Your task to perform on an android device: What's the weather going to be tomorrow? Image 0: 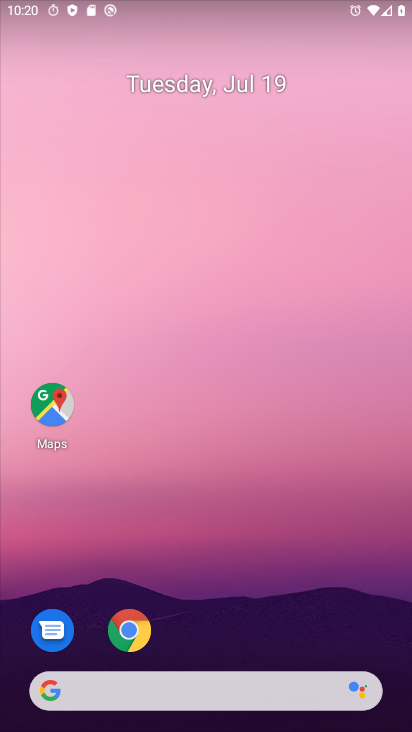
Step 0: press home button
Your task to perform on an android device: What's the weather going to be tomorrow? Image 1: 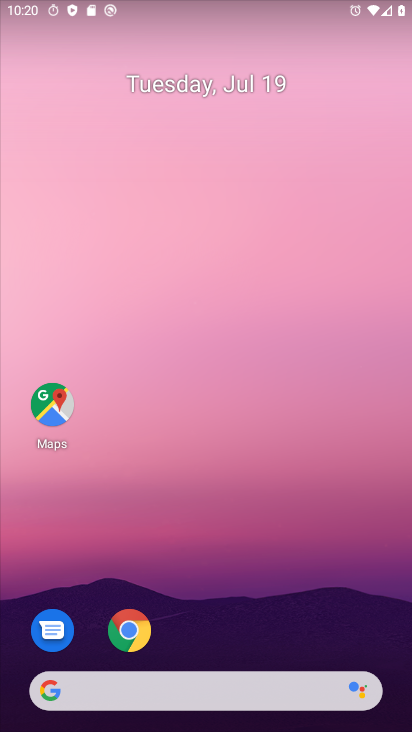
Step 1: click (54, 681)
Your task to perform on an android device: What's the weather going to be tomorrow? Image 2: 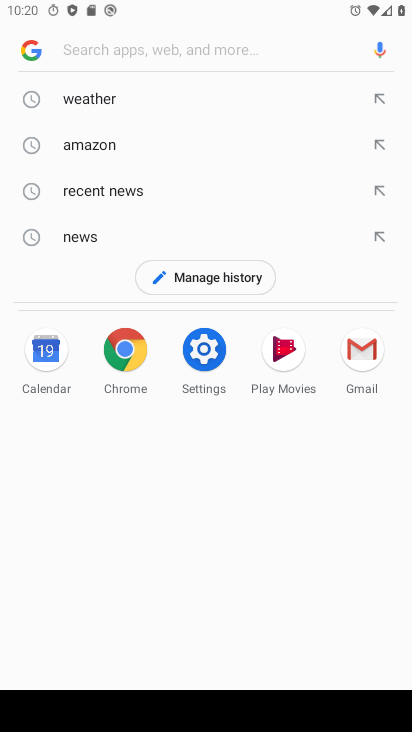
Step 2: type "weather going to be tomorrow"
Your task to perform on an android device: What's the weather going to be tomorrow? Image 3: 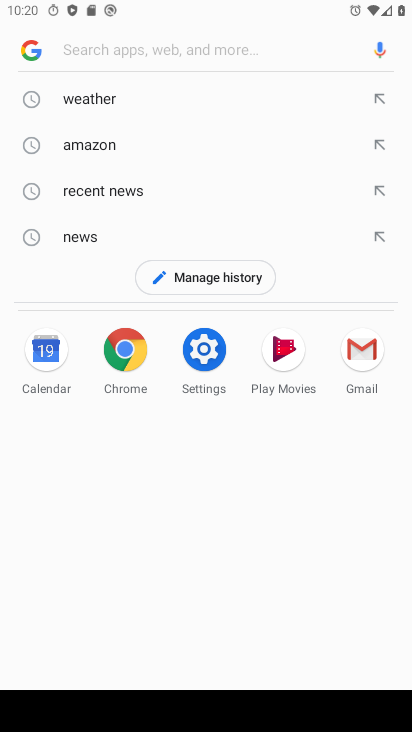
Step 3: click (89, 50)
Your task to perform on an android device: What's the weather going to be tomorrow? Image 4: 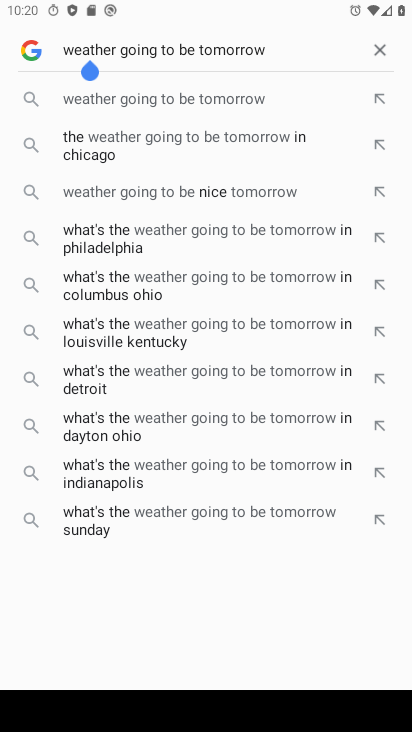
Step 4: press enter
Your task to perform on an android device: What's the weather going to be tomorrow? Image 5: 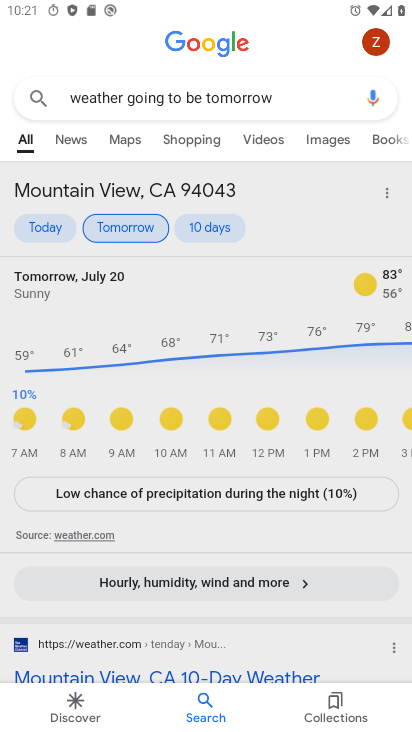
Step 5: task complete